Your task to perform on an android device: toggle priority inbox in the gmail app Image 0: 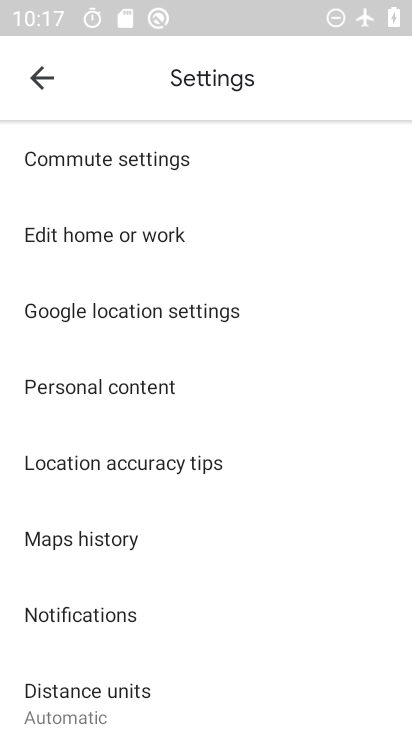
Step 0: press home button
Your task to perform on an android device: toggle priority inbox in the gmail app Image 1: 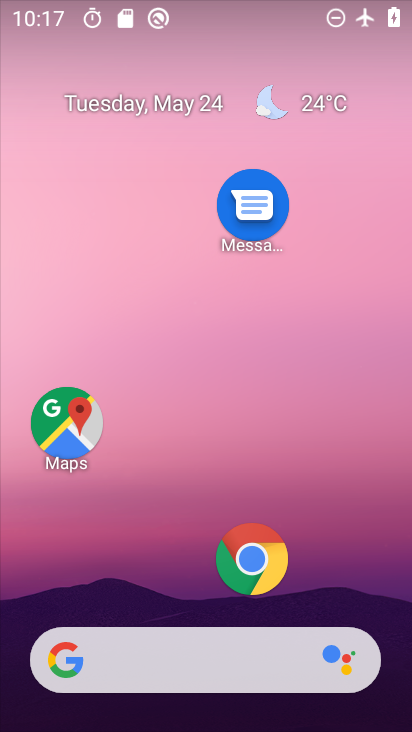
Step 1: drag from (164, 569) to (177, 201)
Your task to perform on an android device: toggle priority inbox in the gmail app Image 2: 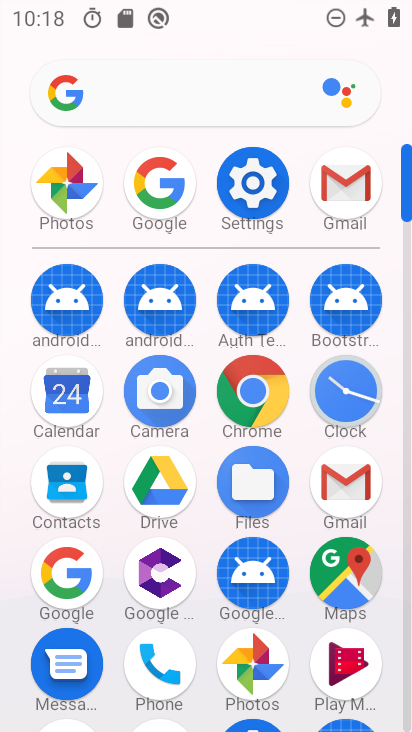
Step 2: click (328, 195)
Your task to perform on an android device: toggle priority inbox in the gmail app Image 3: 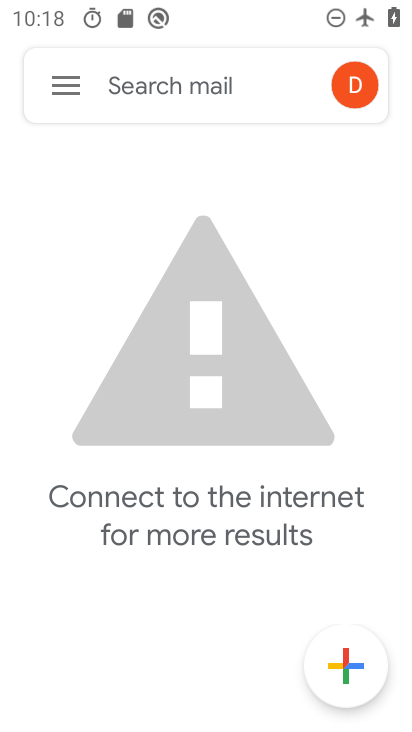
Step 3: click (55, 86)
Your task to perform on an android device: toggle priority inbox in the gmail app Image 4: 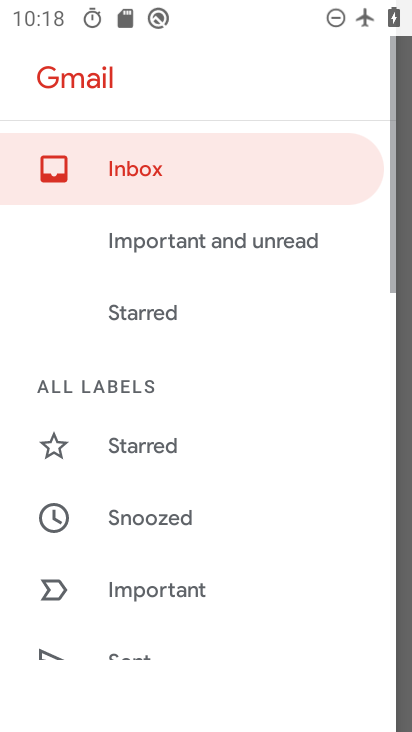
Step 4: drag from (155, 579) to (163, 314)
Your task to perform on an android device: toggle priority inbox in the gmail app Image 5: 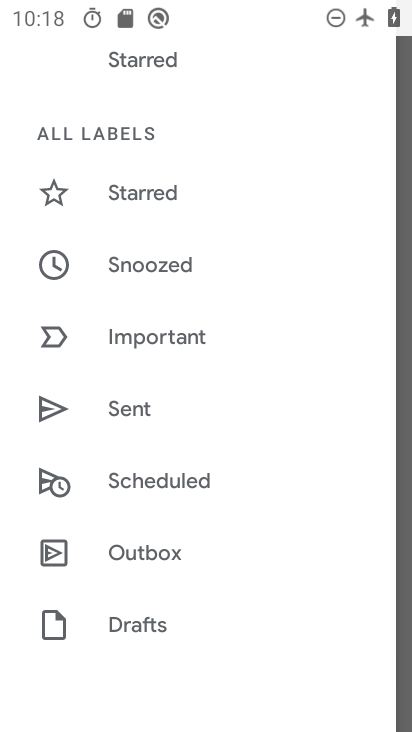
Step 5: drag from (157, 580) to (168, 291)
Your task to perform on an android device: toggle priority inbox in the gmail app Image 6: 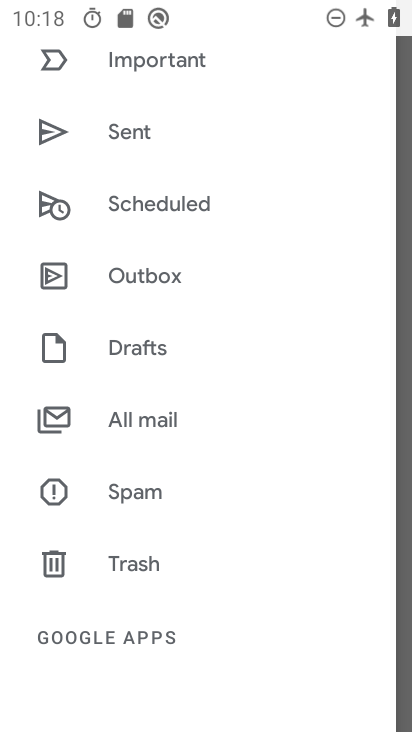
Step 6: drag from (160, 565) to (162, 380)
Your task to perform on an android device: toggle priority inbox in the gmail app Image 7: 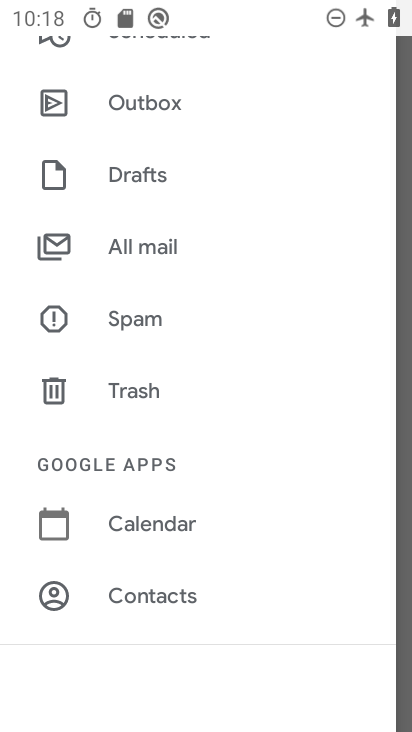
Step 7: drag from (176, 616) to (234, 194)
Your task to perform on an android device: toggle priority inbox in the gmail app Image 8: 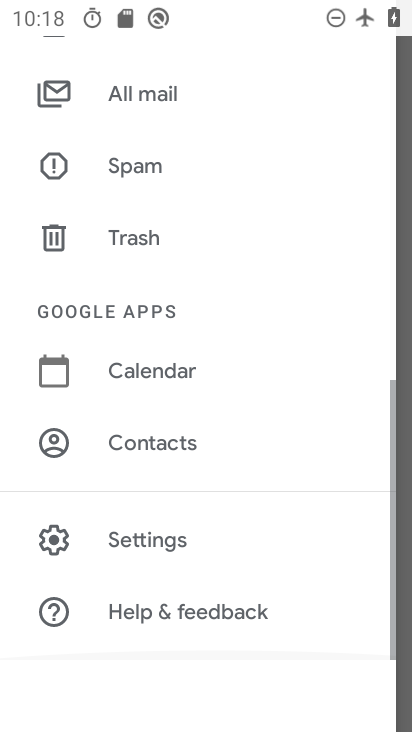
Step 8: click (177, 523)
Your task to perform on an android device: toggle priority inbox in the gmail app Image 9: 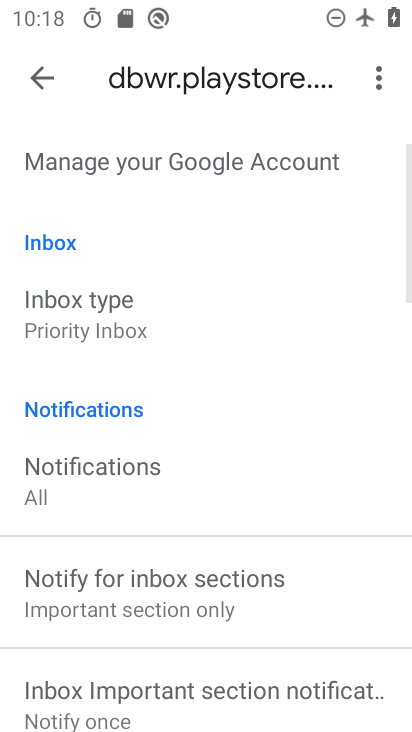
Step 9: click (100, 318)
Your task to perform on an android device: toggle priority inbox in the gmail app Image 10: 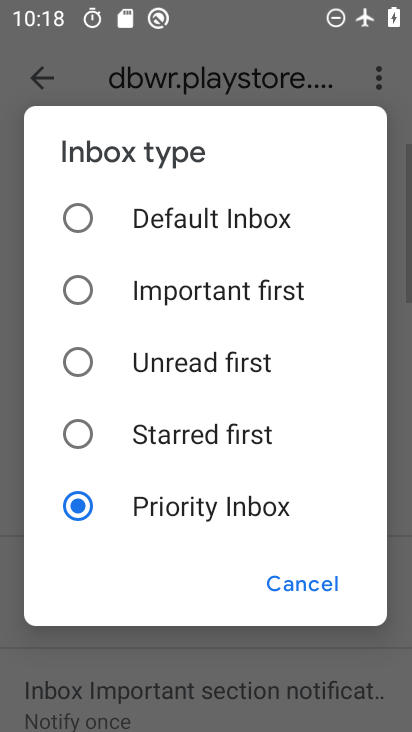
Step 10: click (141, 215)
Your task to perform on an android device: toggle priority inbox in the gmail app Image 11: 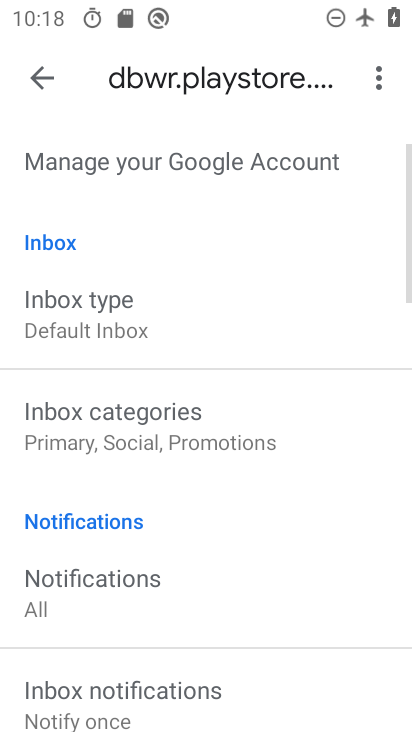
Step 11: task complete